Your task to perform on an android device: toggle wifi Image 0: 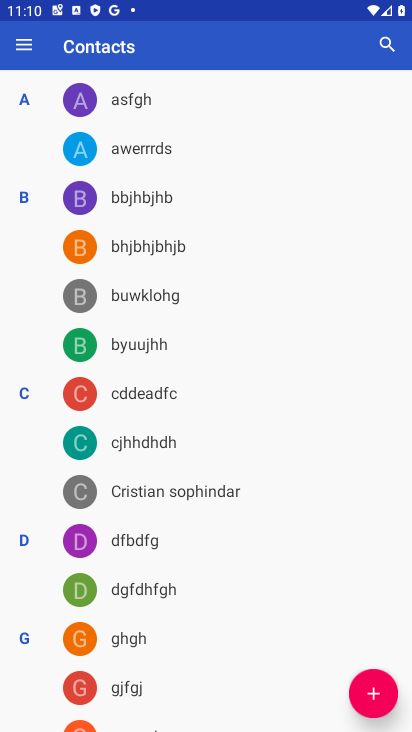
Step 0: press home button
Your task to perform on an android device: toggle wifi Image 1: 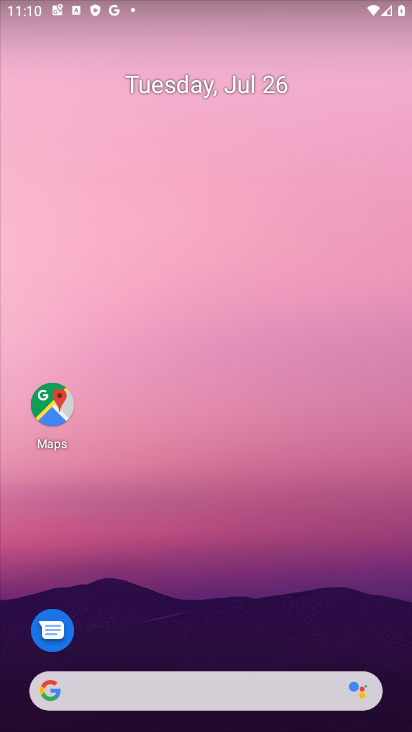
Step 1: drag from (216, 627) to (177, 154)
Your task to perform on an android device: toggle wifi Image 2: 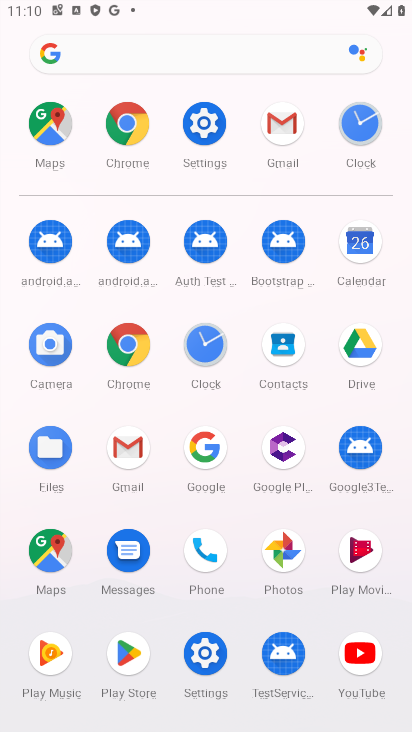
Step 2: click (219, 131)
Your task to perform on an android device: toggle wifi Image 3: 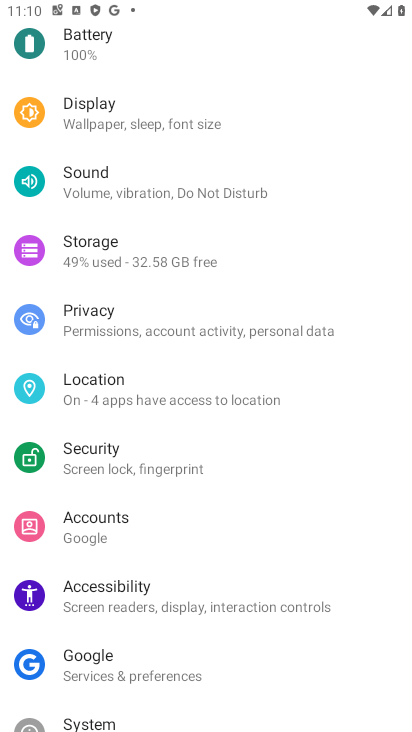
Step 3: drag from (201, 116) to (264, 497)
Your task to perform on an android device: toggle wifi Image 4: 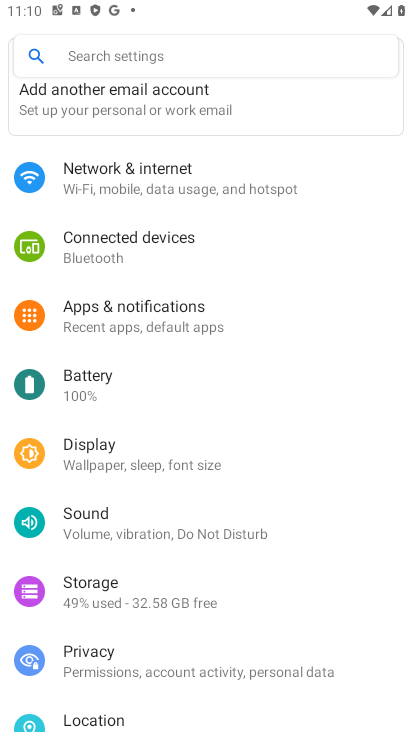
Step 4: click (148, 179)
Your task to perform on an android device: toggle wifi Image 5: 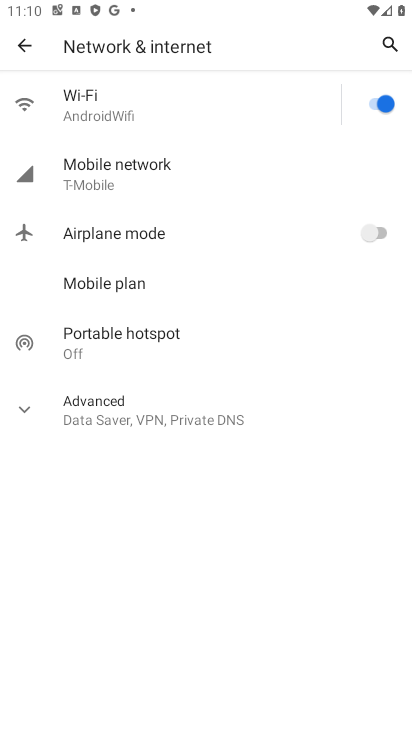
Step 5: click (398, 113)
Your task to perform on an android device: toggle wifi Image 6: 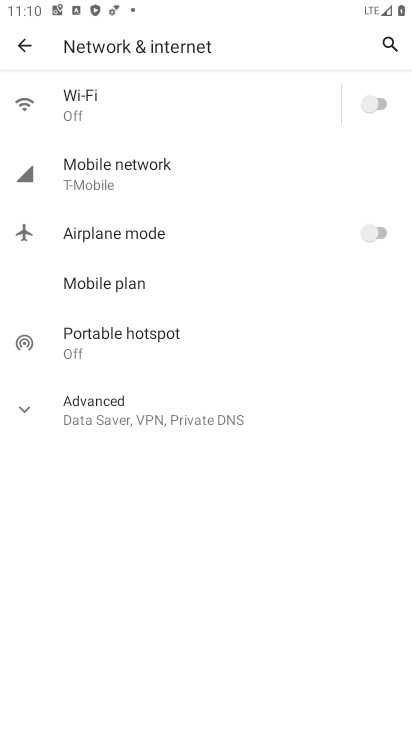
Step 6: task complete